Your task to perform on an android device: turn off translation in the chrome app Image 0: 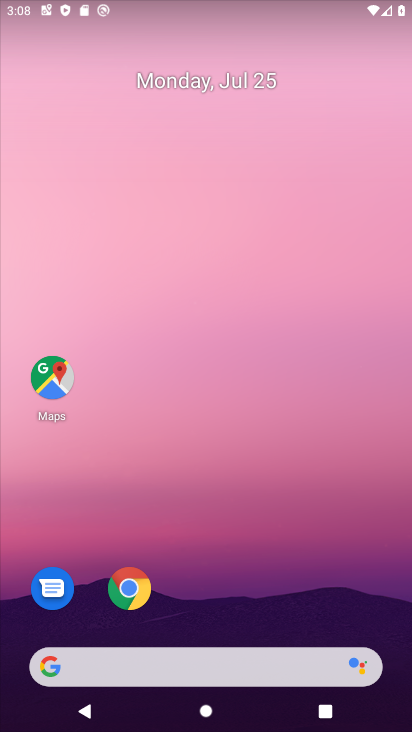
Step 0: drag from (296, 575) to (239, 30)
Your task to perform on an android device: turn off translation in the chrome app Image 1: 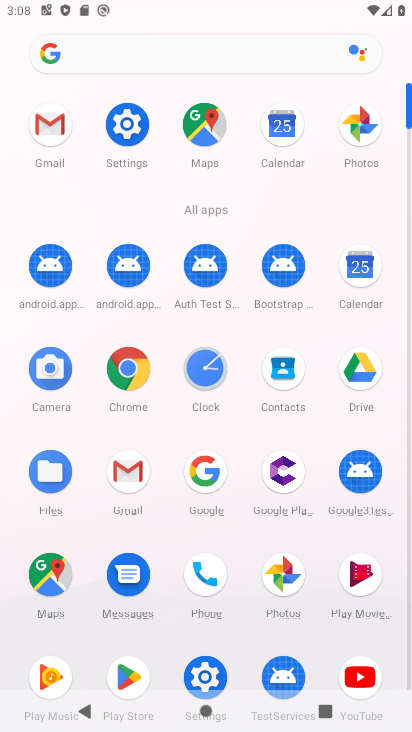
Step 1: click (133, 369)
Your task to perform on an android device: turn off translation in the chrome app Image 2: 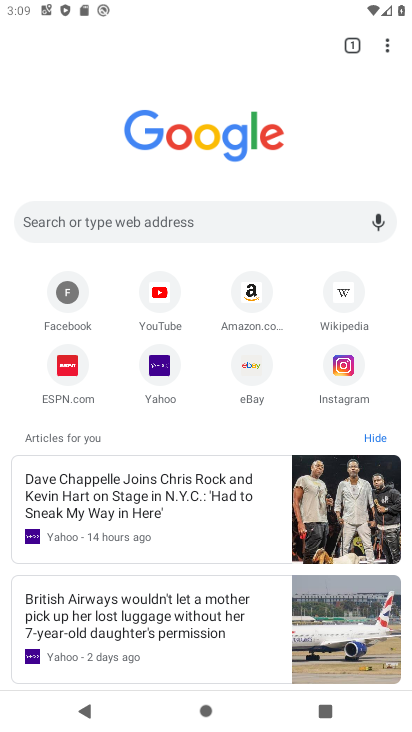
Step 2: click (393, 46)
Your task to perform on an android device: turn off translation in the chrome app Image 3: 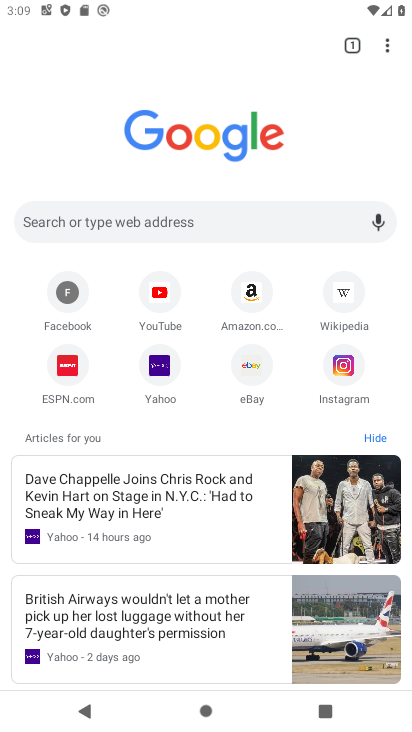
Step 3: drag from (390, 45) to (247, 381)
Your task to perform on an android device: turn off translation in the chrome app Image 4: 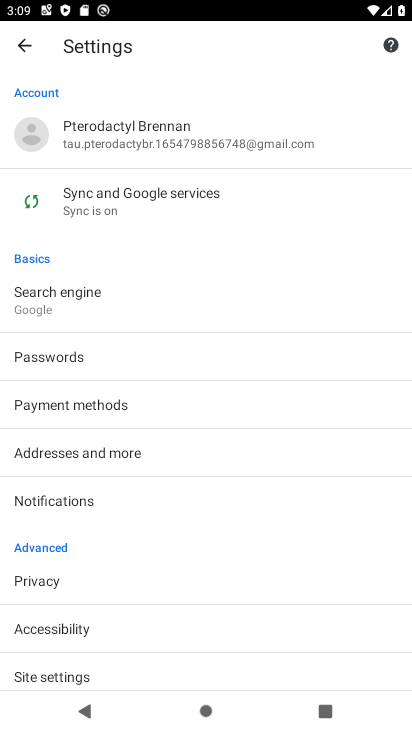
Step 4: drag from (221, 611) to (244, 168)
Your task to perform on an android device: turn off translation in the chrome app Image 5: 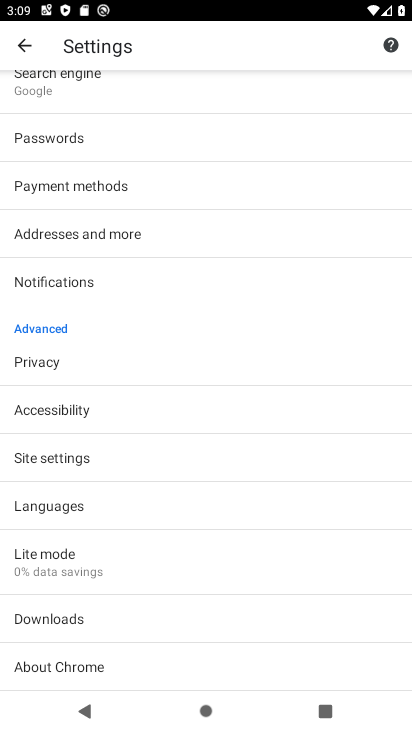
Step 5: click (78, 511)
Your task to perform on an android device: turn off translation in the chrome app Image 6: 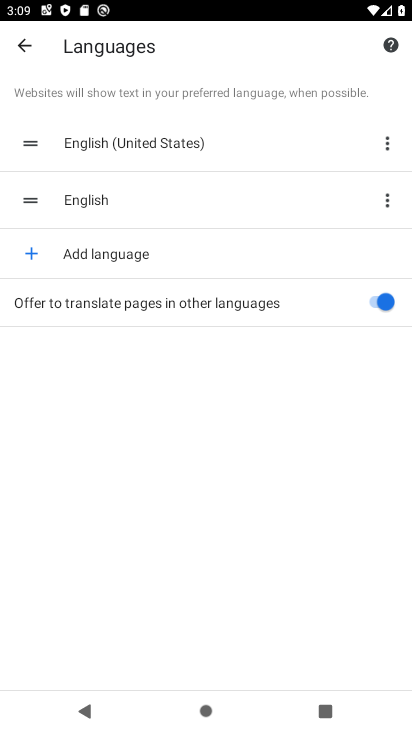
Step 6: click (365, 307)
Your task to perform on an android device: turn off translation in the chrome app Image 7: 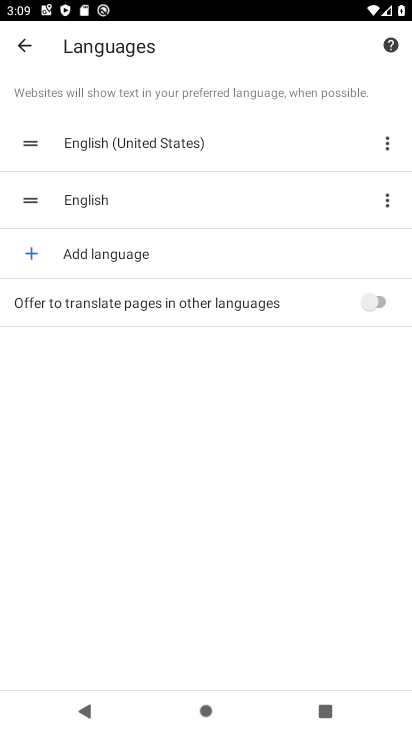
Step 7: task complete